Your task to perform on an android device: View the shopping cart on bestbuy. Add "logitech g pro" to the cart on bestbuy, then select checkout. Image 0: 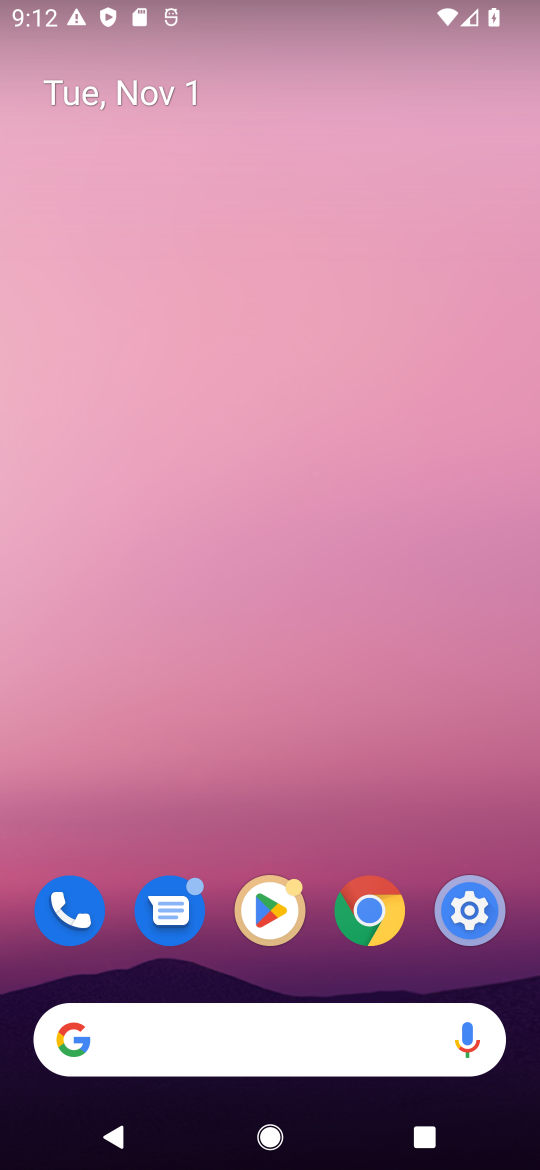
Step 0: click (367, 907)
Your task to perform on an android device: View the shopping cart on bestbuy. Add "logitech g pro" to the cart on bestbuy, then select checkout. Image 1: 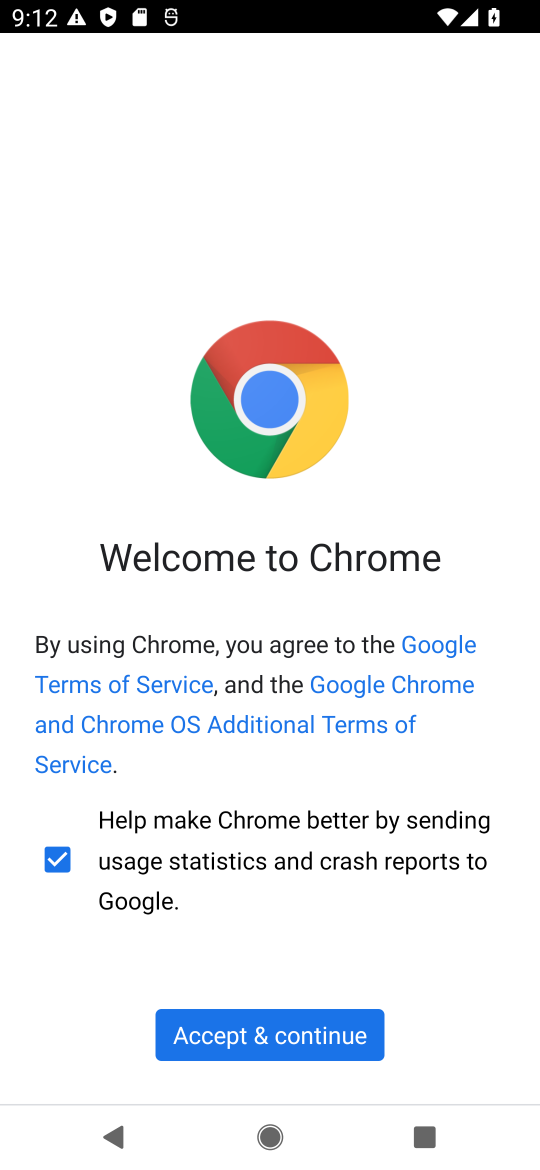
Step 1: click (255, 1044)
Your task to perform on an android device: View the shopping cart on bestbuy. Add "logitech g pro" to the cart on bestbuy, then select checkout. Image 2: 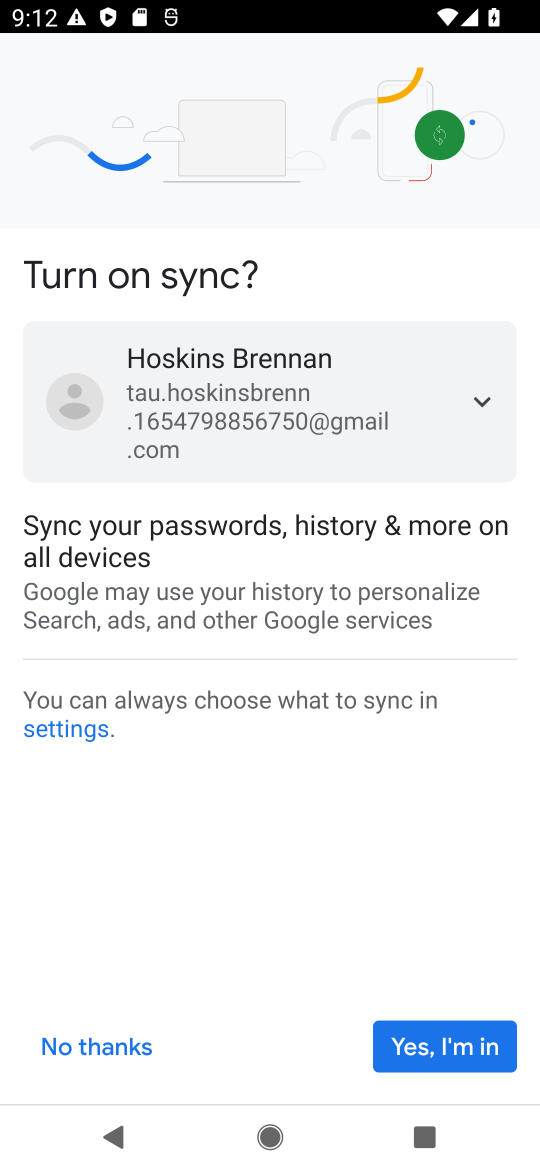
Step 2: click (444, 1051)
Your task to perform on an android device: View the shopping cart on bestbuy. Add "logitech g pro" to the cart on bestbuy, then select checkout. Image 3: 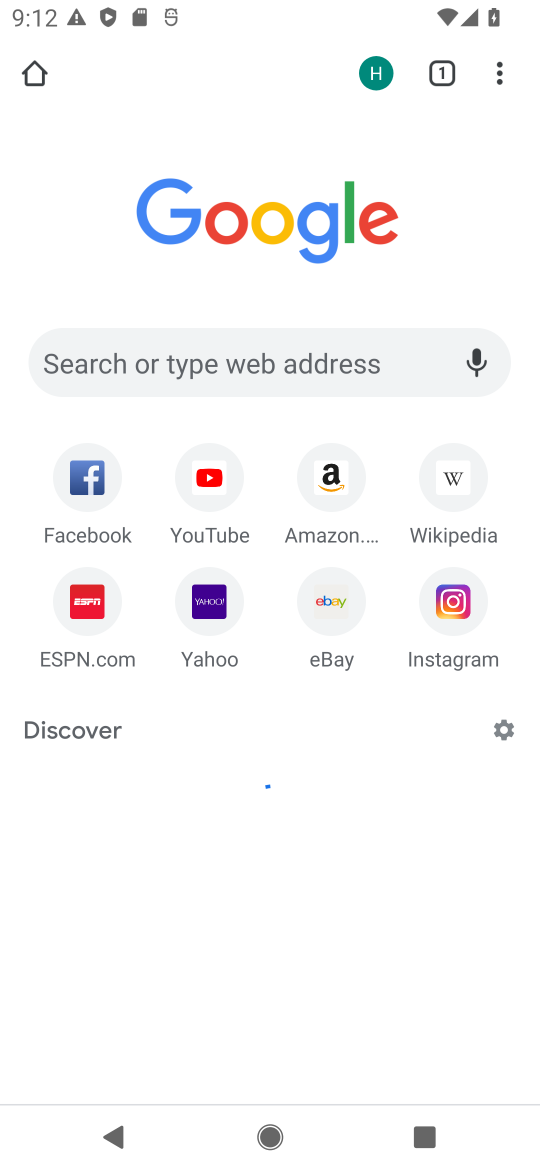
Step 3: click (135, 361)
Your task to perform on an android device: View the shopping cart on bestbuy. Add "logitech g pro" to the cart on bestbuy, then select checkout. Image 4: 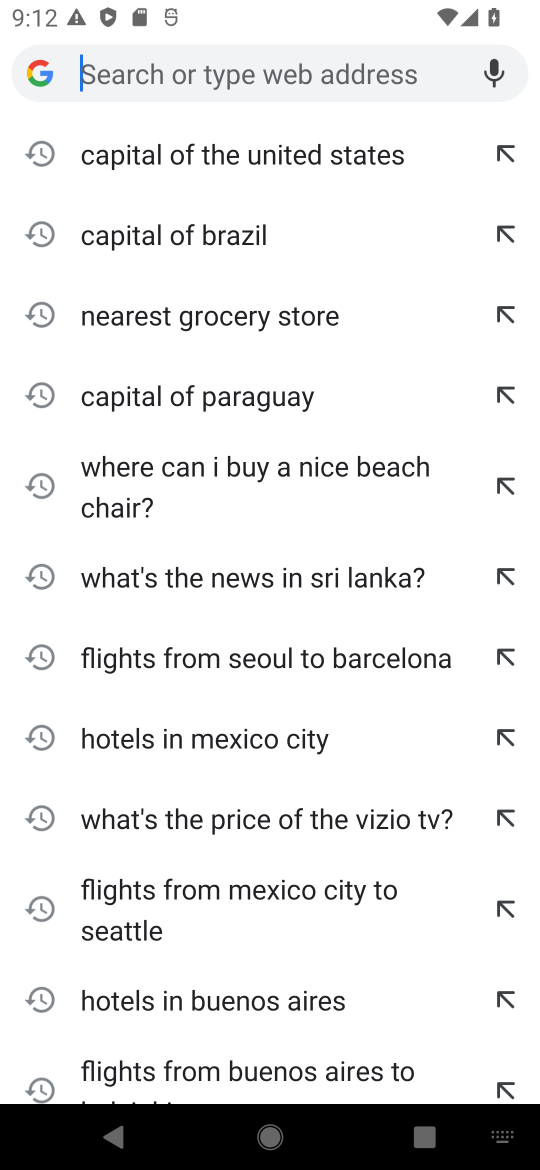
Step 4: type "bestbuy.com"
Your task to perform on an android device: View the shopping cart on bestbuy. Add "logitech g pro" to the cart on bestbuy, then select checkout. Image 5: 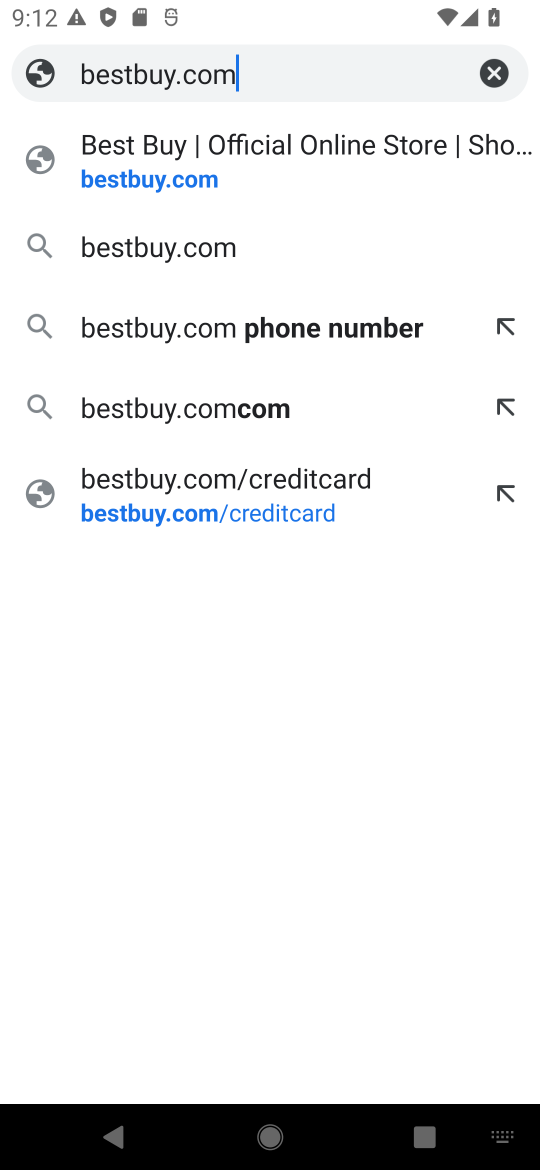
Step 5: click (127, 190)
Your task to perform on an android device: View the shopping cart on bestbuy. Add "logitech g pro" to the cart on bestbuy, then select checkout. Image 6: 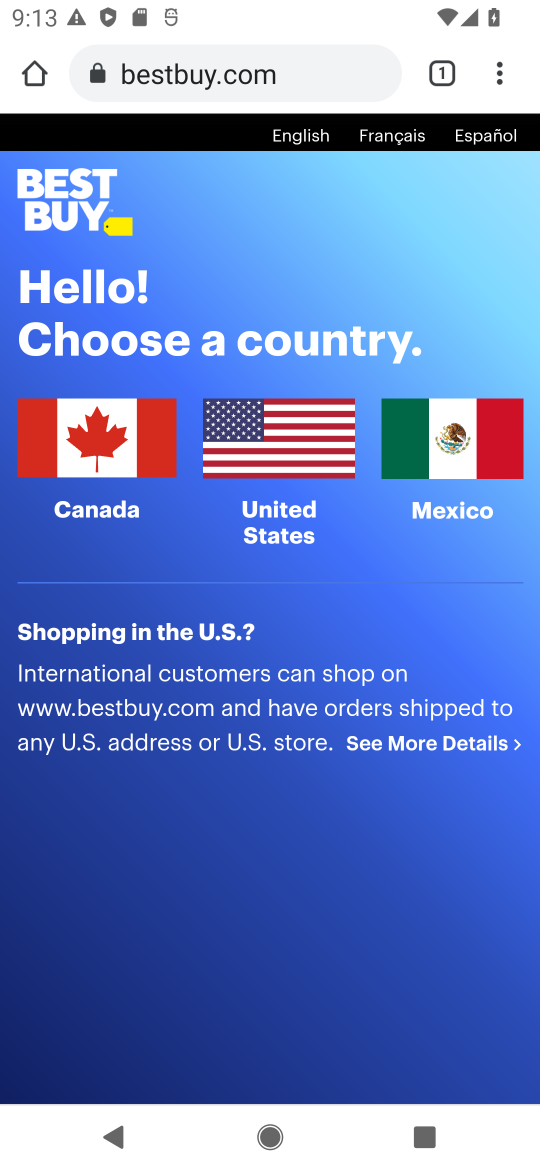
Step 6: click (288, 468)
Your task to perform on an android device: View the shopping cart on bestbuy. Add "logitech g pro" to the cart on bestbuy, then select checkout. Image 7: 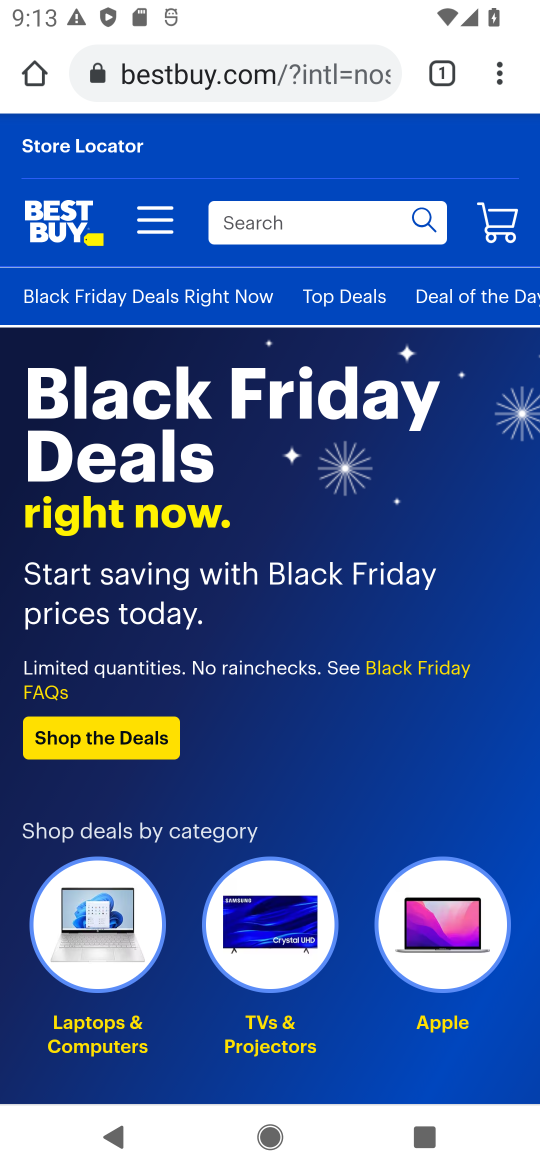
Step 7: click (267, 234)
Your task to perform on an android device: View the shopping cart on bestbuy. Add "logitech g pro" to the cart on bestbuy, then select checkout. Image 8: 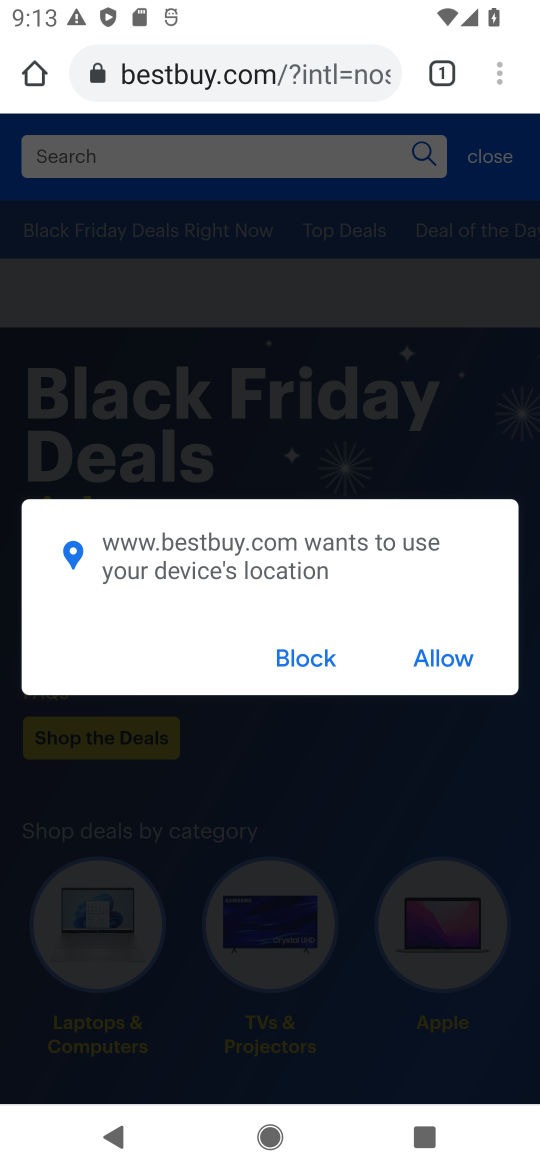
Step 8: click (309, 663)
Your task to perform on an android device: View the shopping cart on bestbuy. Add "logitech g pro" to the cart on bestbuy, then select checkout. Image 9: 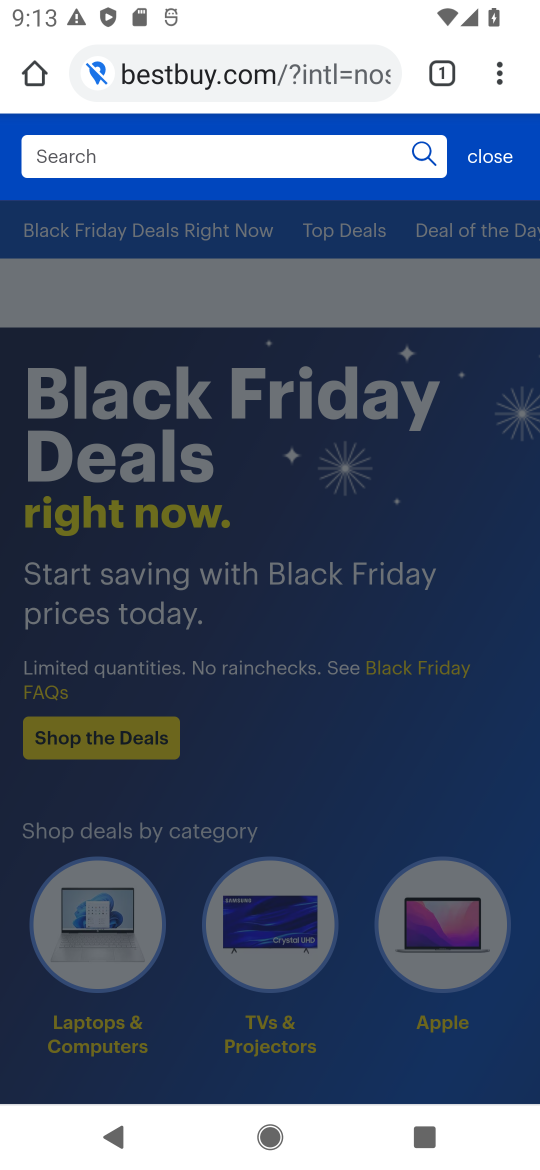
Step 9: click (133, 155)
Your task to perform on an android device: View the shopping cart on bestbuy. Add "logitech g pro" to the cart on bestbuy, then select checkout. Image 10: 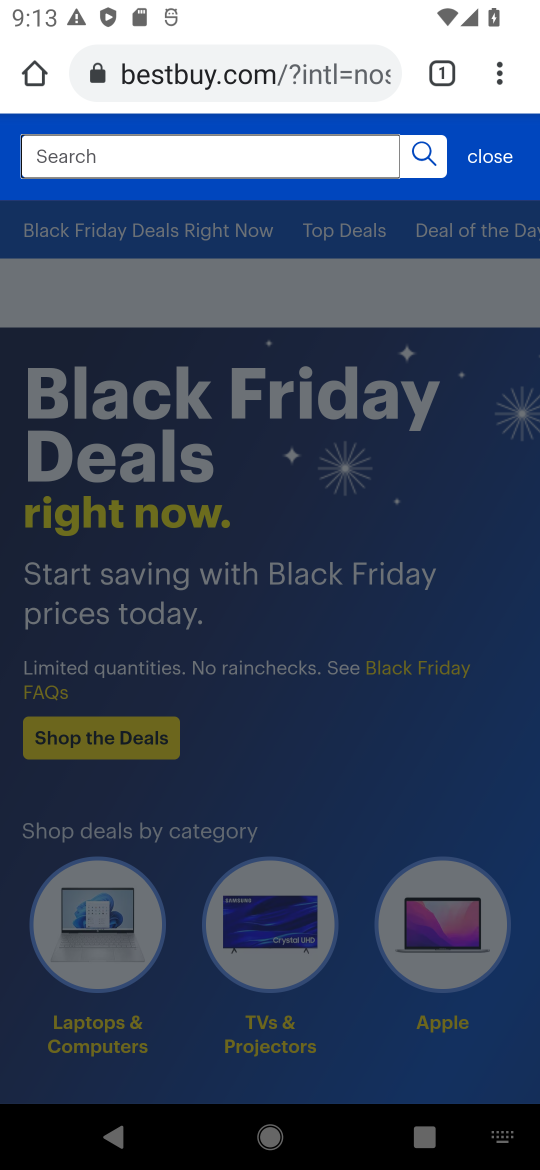
Step 10: type "logitech g pro"
Your task to perform on an android device: View the shopping cart on bestbuy. Add "logitech g pro" to the cart on bestbuy, then select checkout. Image 11: 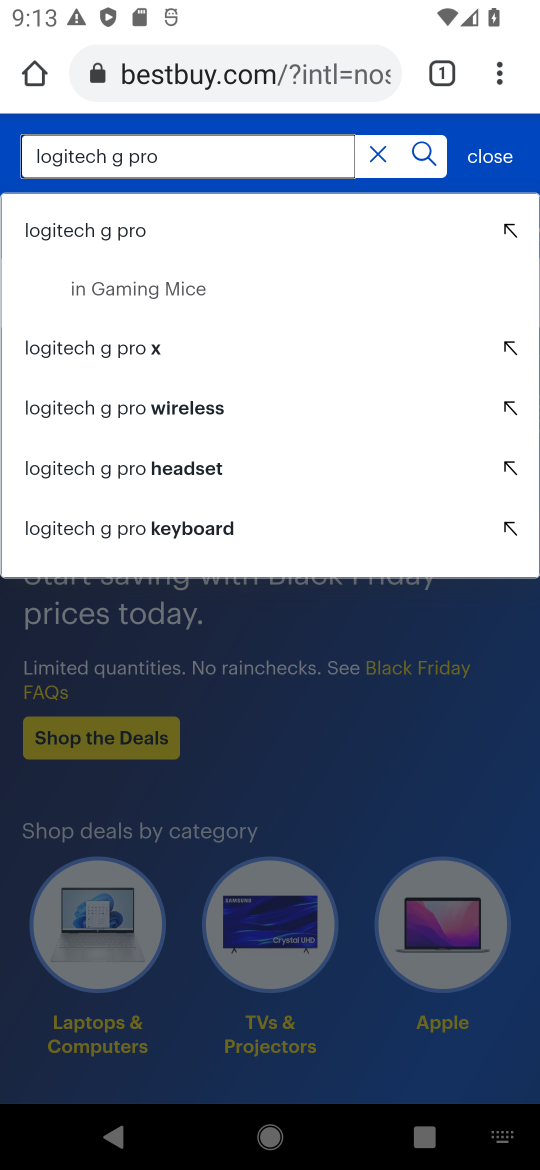
Step 11: click (103, 232)
Your task to perform on an android device: View the shopping cart on bestbuy. Add "logitech g pro" to the cart on bestbuy, then select checkout. Image 12: 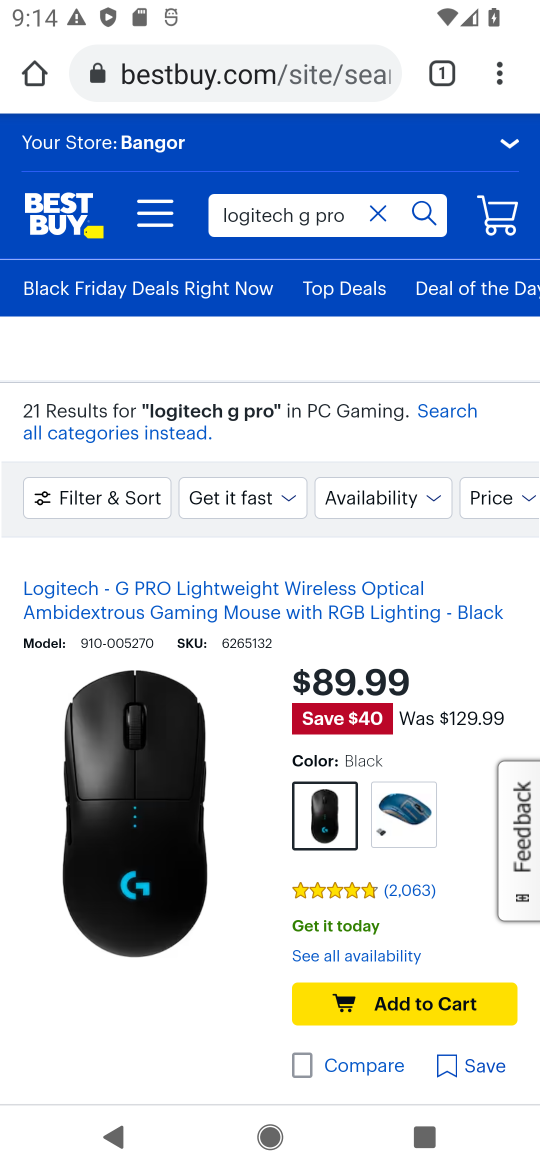
Step 12: click (512, 185)
Your task to perform on an android device: View the shopping cart on bestbuy. Add "logitech g pro" to the cart on bestbuy, then select checkout. Image 13: 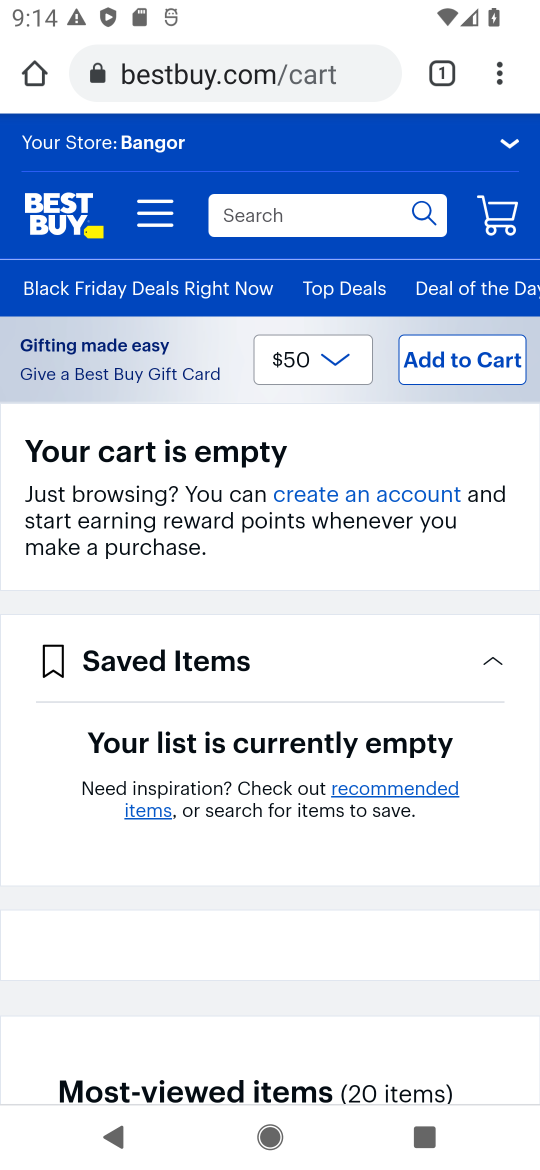
Step 13: click (296, 209)
Your task to perform on an android device: View the shopping cart on bestbuy. Add "logitech g pro" to the cart on bestbuy, then select checkout. Image 14: 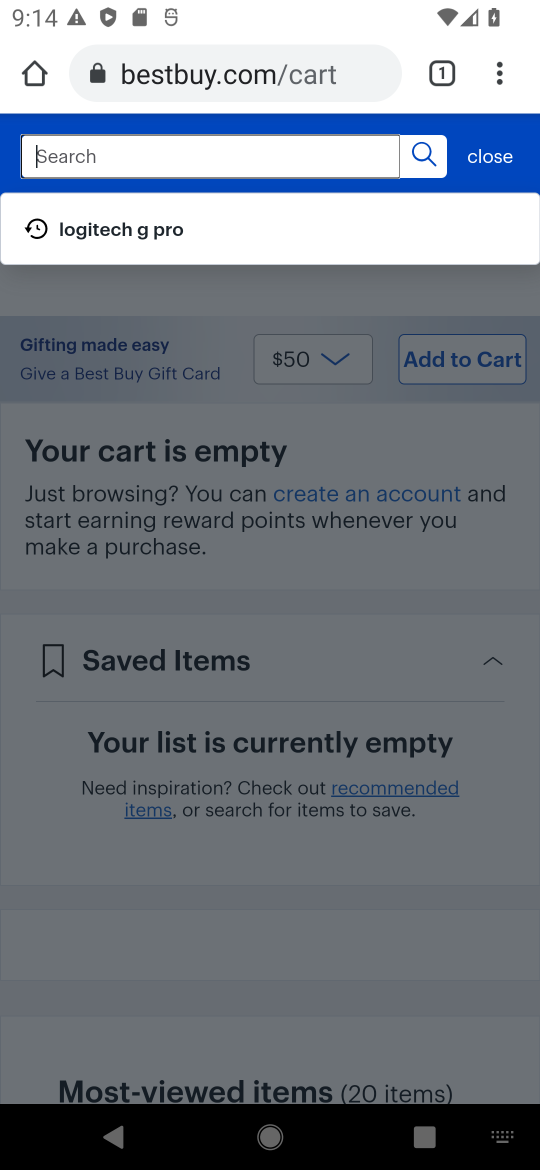
Step 14: type "logitech g pro"
Your task to perform on an android device: View the shopping cart on bestbuy. Add "logitech g pro" to the cart on bestbuy, then select checkout. Image 15: 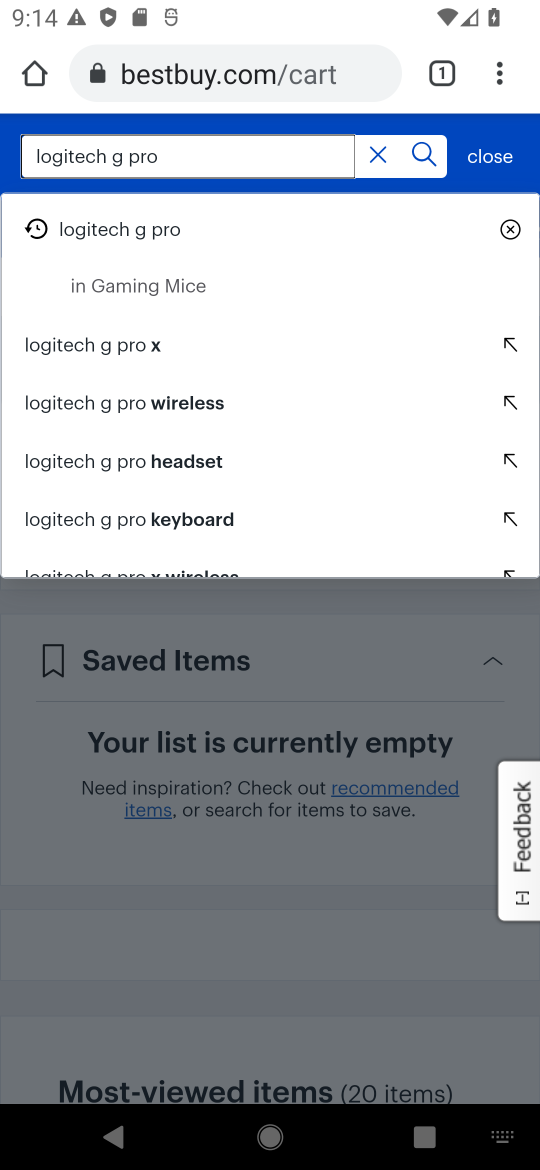
Step 15: click (121, 236)
Your task to perform on an android device: View the shopping cart on bestbuy. Add "logitech g pro" to the cart on bestbuy, then select checkout. Image 16: 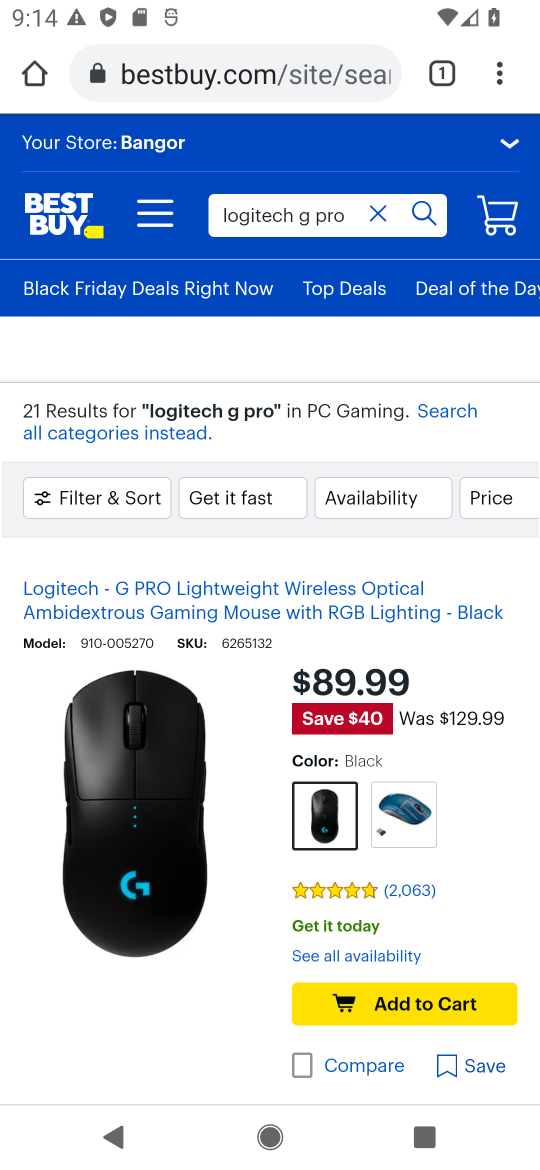
Step 16: click (187, 831)
Your task to perform on an android device: View the shopping cart on bestbuy. Add "logitech g pro" to the cart on bestbuy, then select checkout. Image 17: 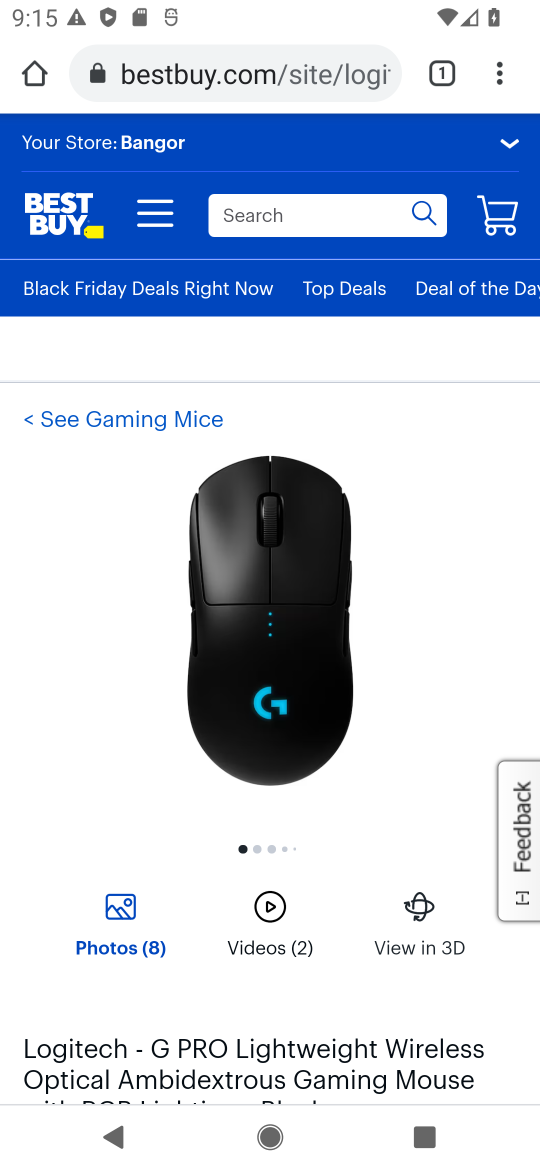
Step 17: drag from (370, 830) to (333, 373)
Your task to perform on an android device: View the shopping cart on bestbuy. Add "logitech g pro" to the cart on bestbuy, then select checkout. Image 18: 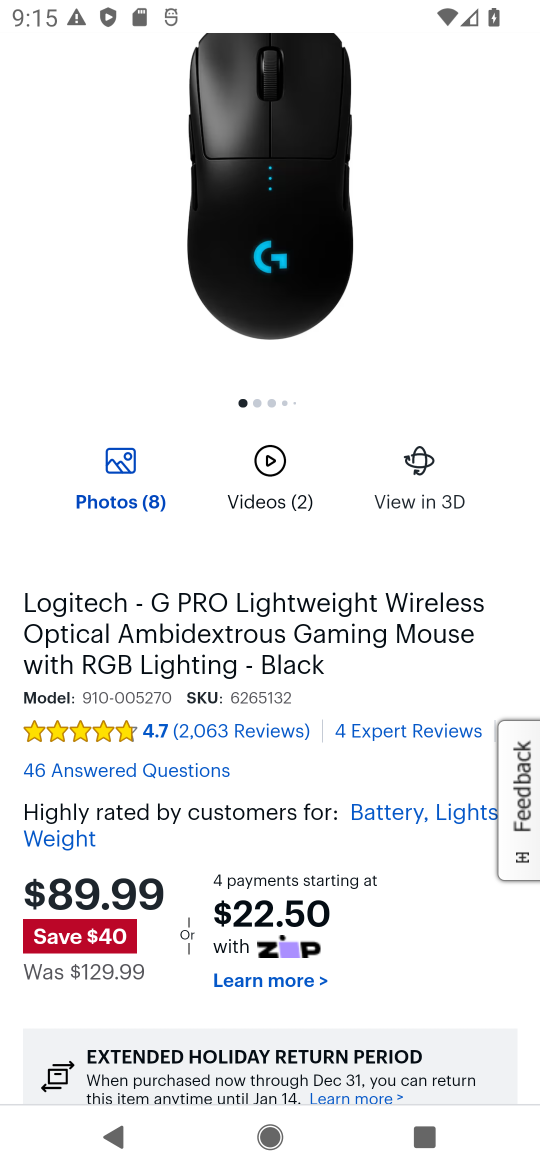
Step 18: drag from (304, 907) to (345, 391)
Your task to perform on an android device: View the shopping cart on bestbuy. Add "logitech g pro" to the cart on bestbuy, then select checkout. Image 19: 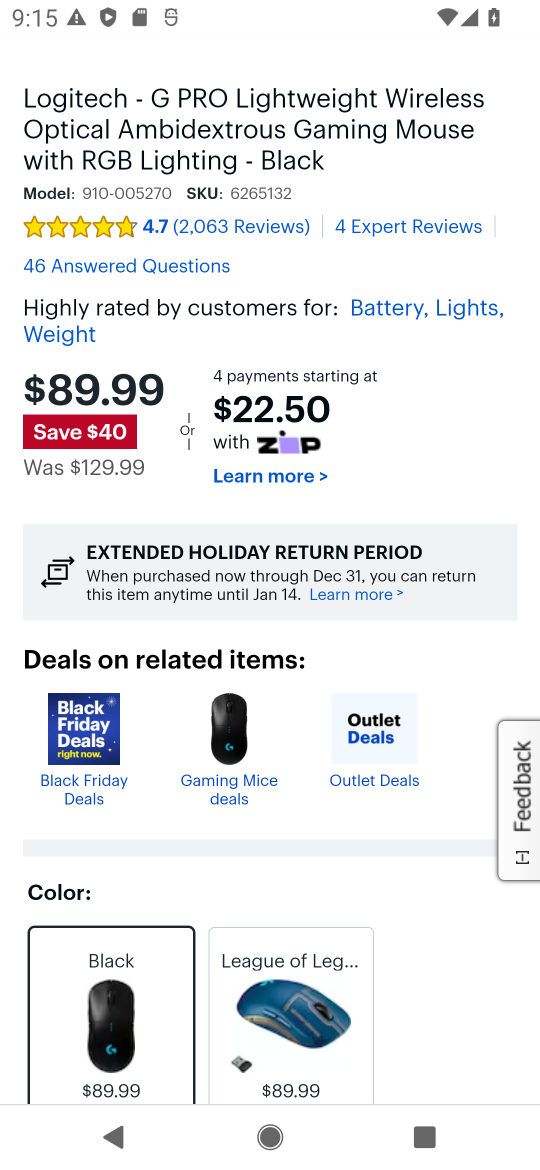
Step 19: drag from (274, 909) to (263, 370)
Your task to perform on an android device: View the shopping cart on bestbuy. Add "logitech g pro" to the cart on bestbuy, then select checkout. Image 20: 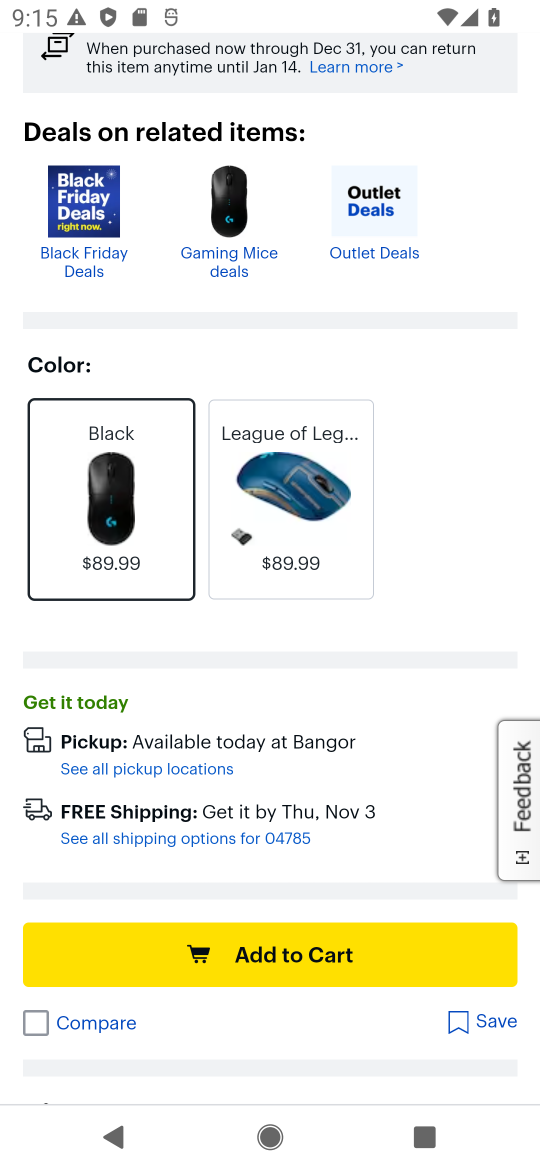
Step 20: drag from (310, 1014) to (312, 656)
Your task to perform on an android device: View the shopping cart on bestbuy. Add "logitech g pro" to the cart on bestbuy, then select checkout. Image 21: 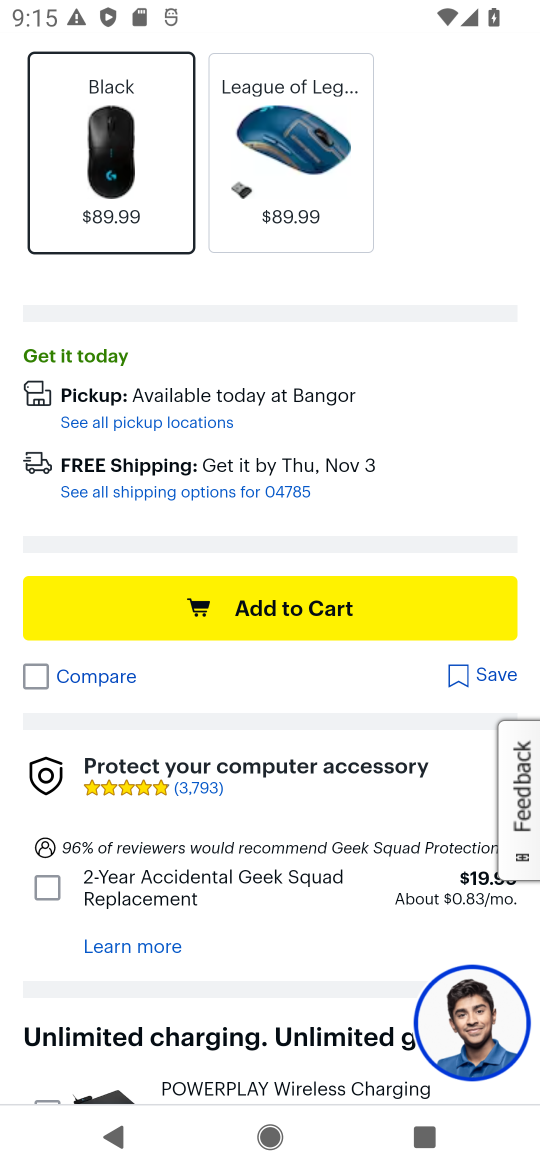
Step 21: click (268, 613)
Your task to perform on an android device: View the shopping cart on bestbuy. Add "logitech g pro" to the cart on bestbuy, then select checkout. Image 22: 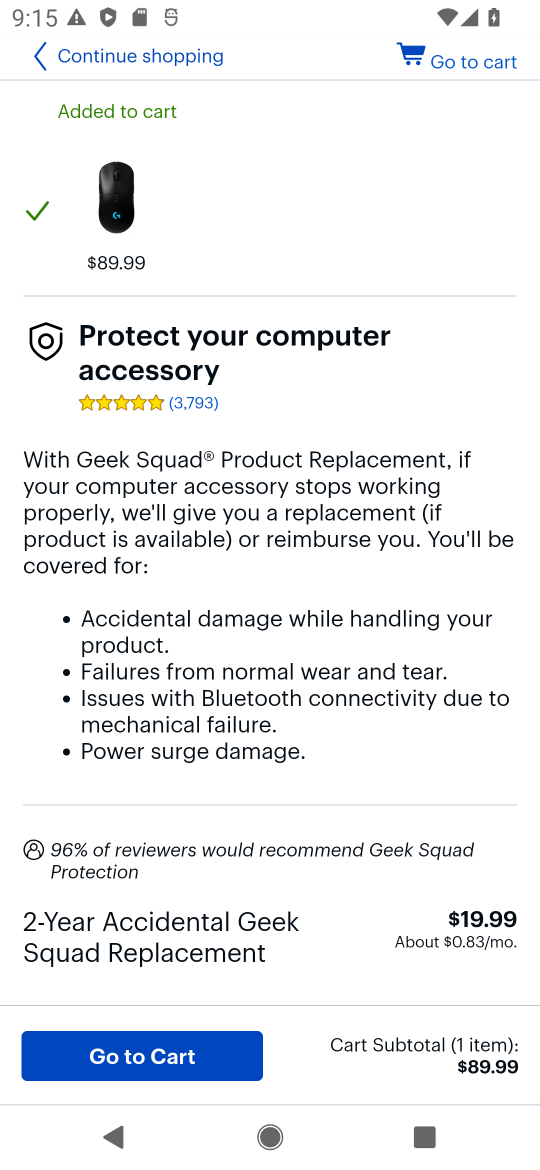
Step 22: click (481, 71)
Your task to perform on an android device: View the shopping cart on bestbuy. Add "logitech g pro" to the cart on bestbuy, then select checkout. Image 23: 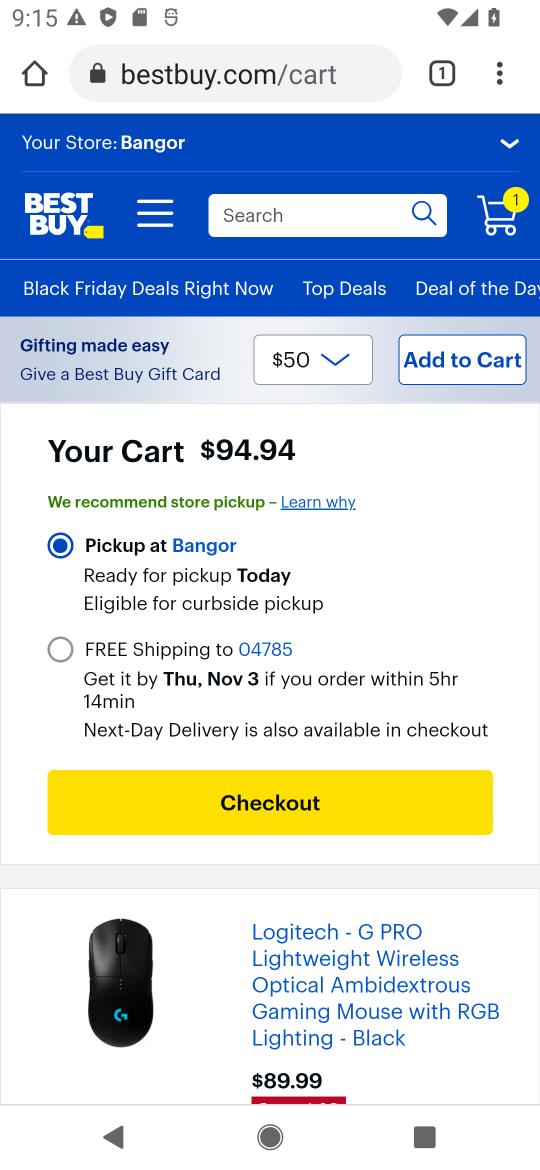
Step 23: click (245, 794)
Your task to perform on an android device: View the shopping cart on bestbuy. Add "logitech g pro" to the cart on bestbuy, then select checkout. Image 24: 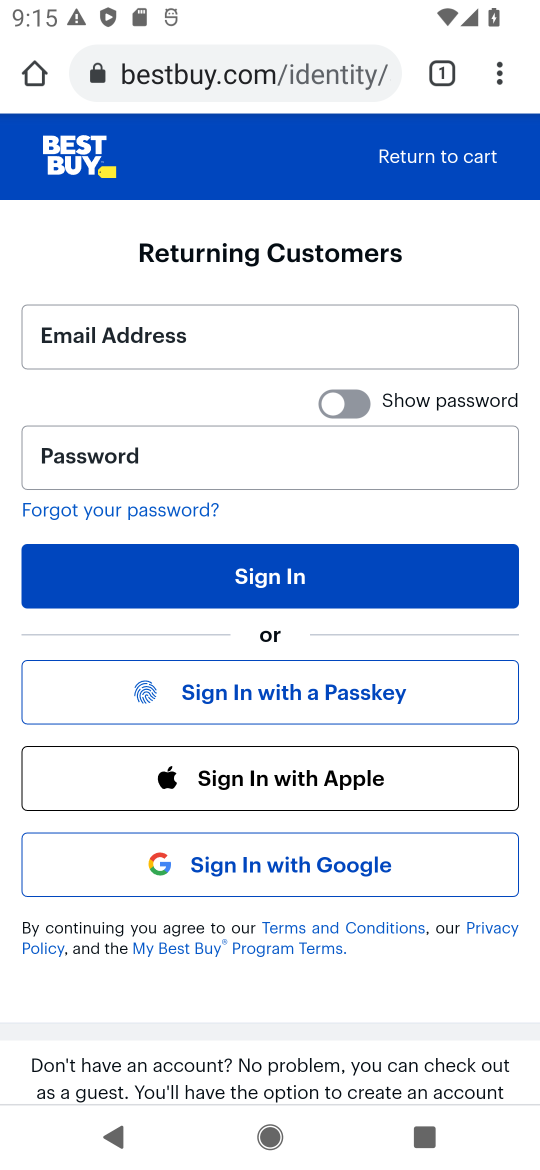
Step 24: task complete